Your task to perform on an android device: open wifi settings Image 0: 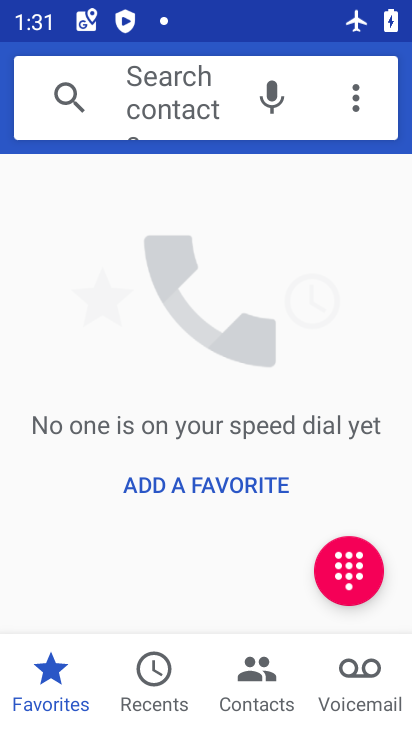
Step 0: press home button
Your task to perform on an android device: open wifi settings Image 1: 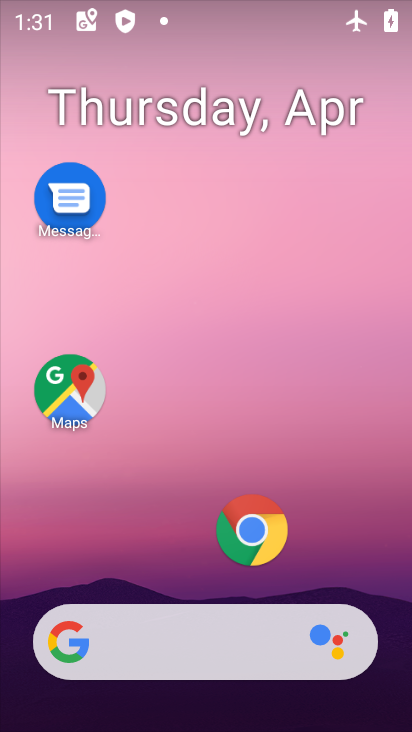
Step 1: drag from (195, 536) to (177, 3)
Your task to perform on an android device: open wifi settings Image 2: 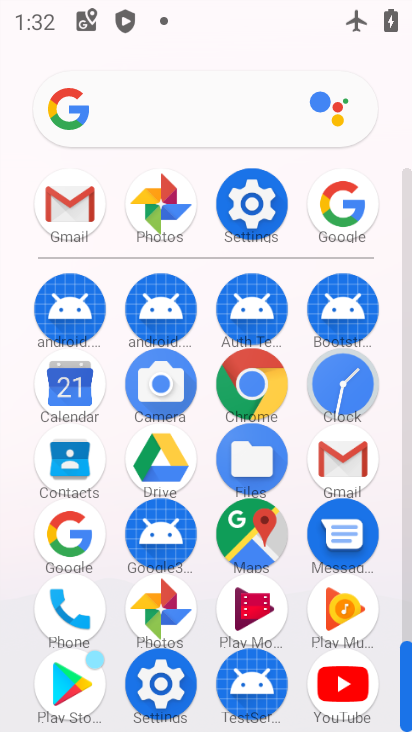
Step 2: click (254, 217)
Your task to perform on an android device: open wifi settings Image 3: 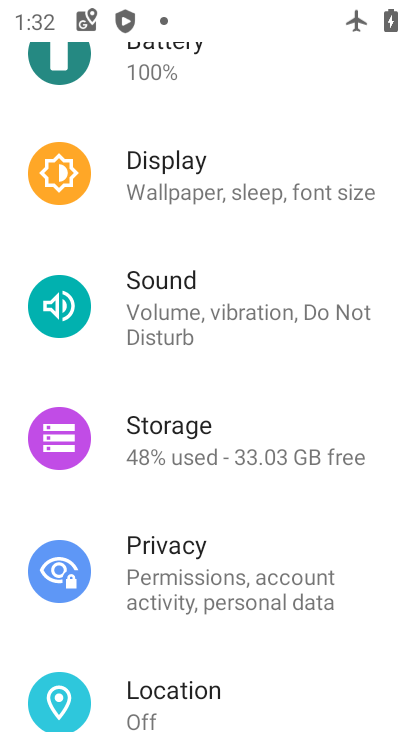
Step 3: drag from (188, 150) to (193, 490)
Your task to perform on an android device: open wifi settings Image 4: 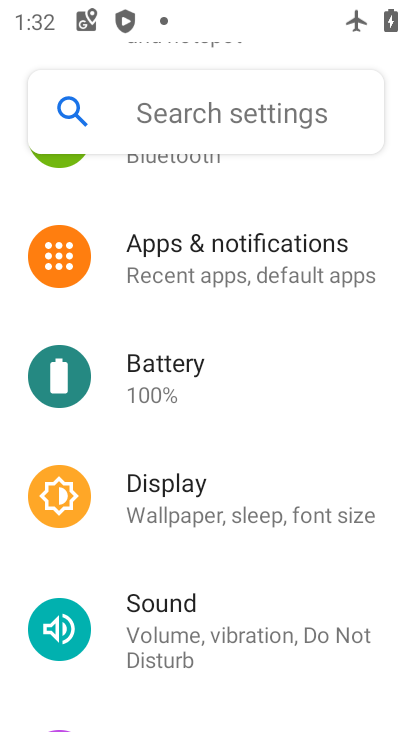
Step 4: drag from (200, 220) to (204, 586)
Your task to perform on an android device: open wifi settings Image 5: 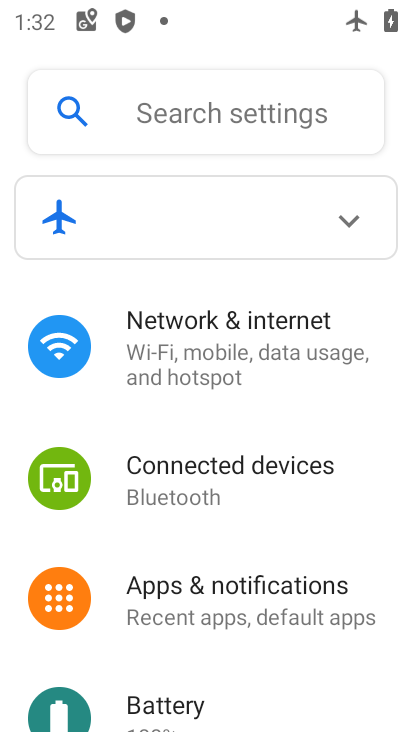
Step 5: click (224, 338)
Your task to perform on an android device: open wifi settings Image 6: 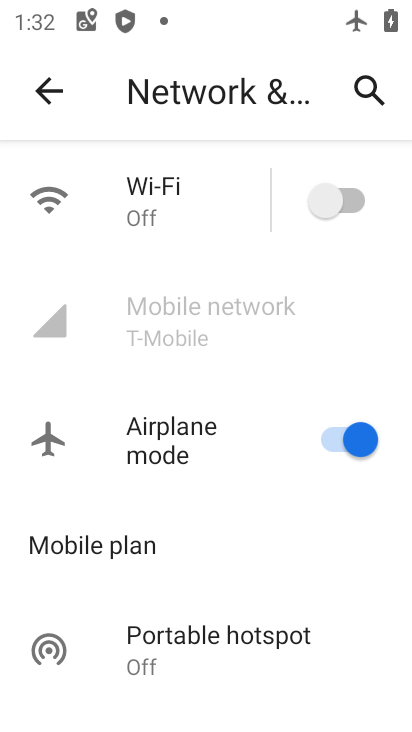
Step 6: click (209, 210)
Your task to perform on an android device: open wifi settings Image 7: 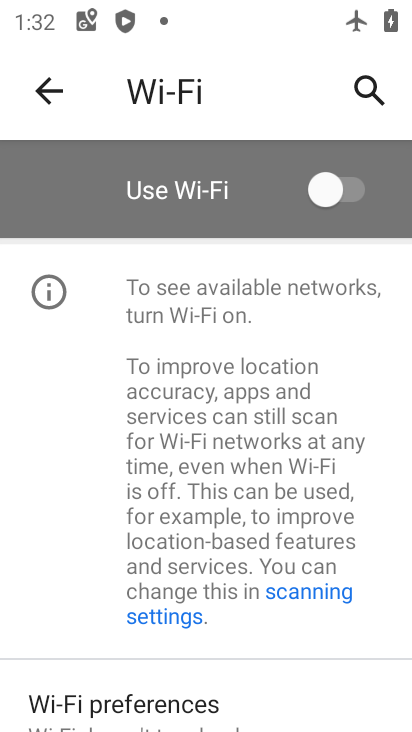
Step 7: task complete